Your task to perform on an android device: set an alarm Image 0: 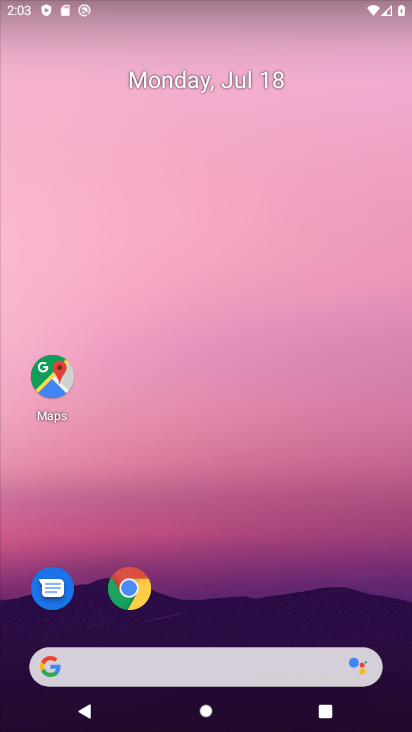
Step 0: drag from (354, 624) to (269, 170)
Your task to perform on an android device: set an alarm Image 1: 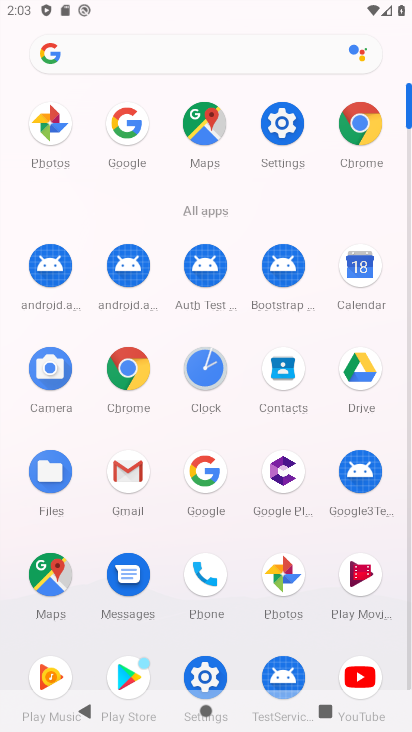
Step 1: click (200, 377)
Your task to perform on an android device: set an alarm Image 2: 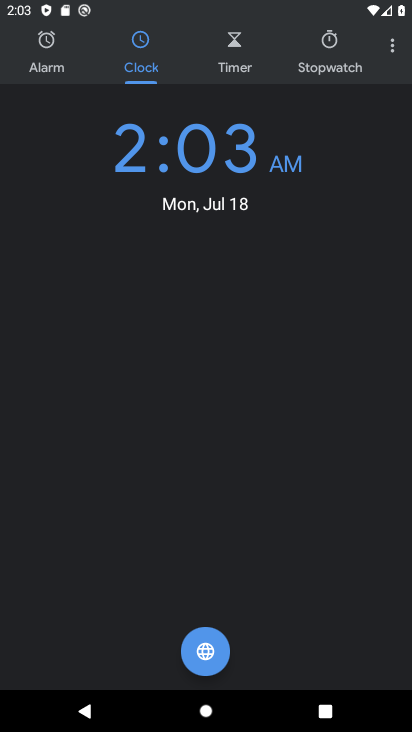
Step 2: click (54, 59)
Your task to perform on an android device: set an alarm Image 3: 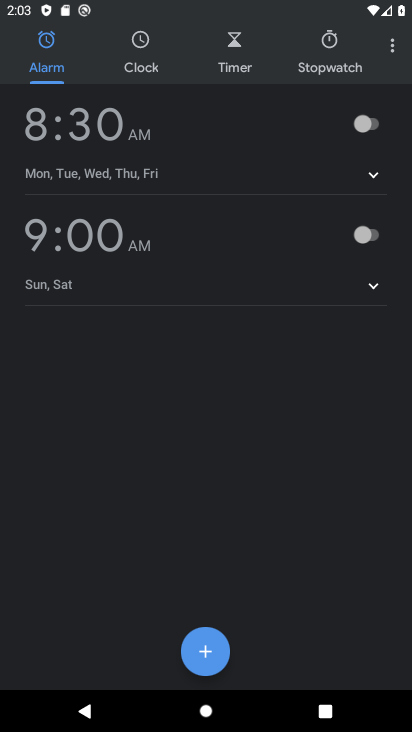
Step 3: click (219, 635)
Your task to perform on an android device: set an alarm Image 4: 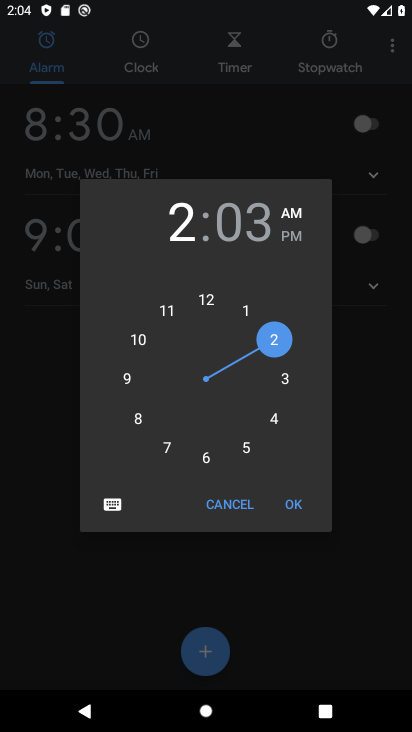
Step 4: click (285, 511)
Your task to perform on an android device: set an alarm Image 5: 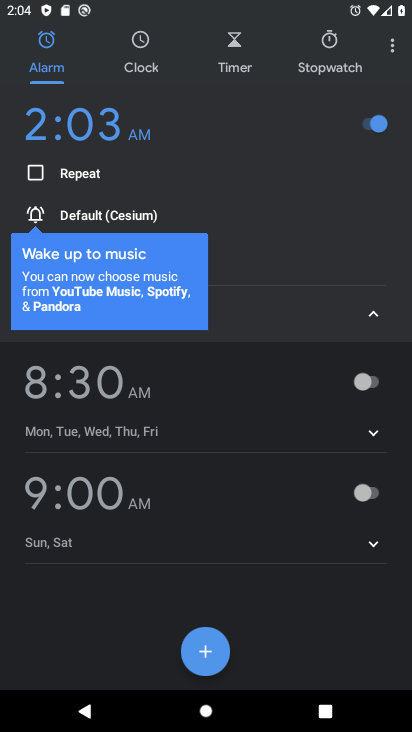
Step 5: task complete